Your task to perform on an android device: Do I have any events this weekend? Image 0: 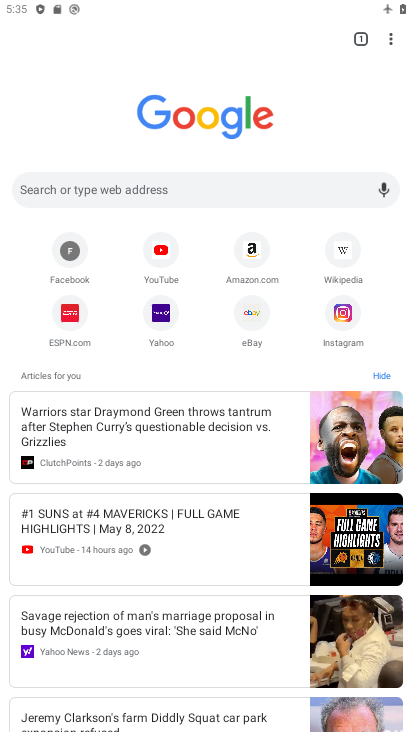
Step 0: press home button
Your task to perform on an android device: Do I have any events this weekend? Image 1: 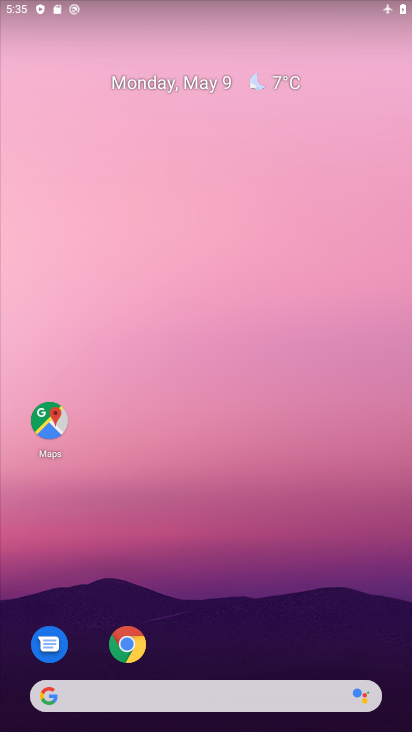
Step 1: click (159, 81)
Your task to perform on an android device: Do I have any events this weekend? Image 2: 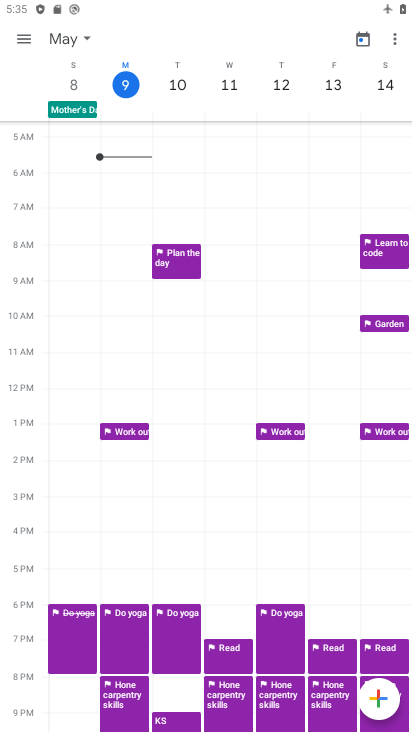
Step 2: click (23, 35)
Your task to perform on an android device: Do I have any events this weekend? Image 3: 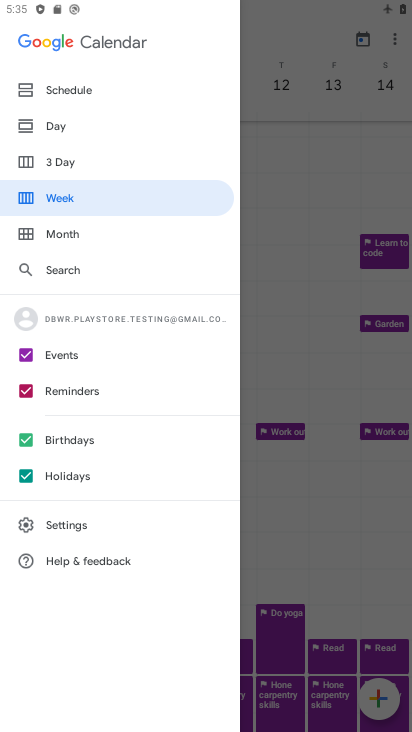
Step 3: click (74, 159)
Your task to perform on an android device: Do I have any events this weekend? Image 4: 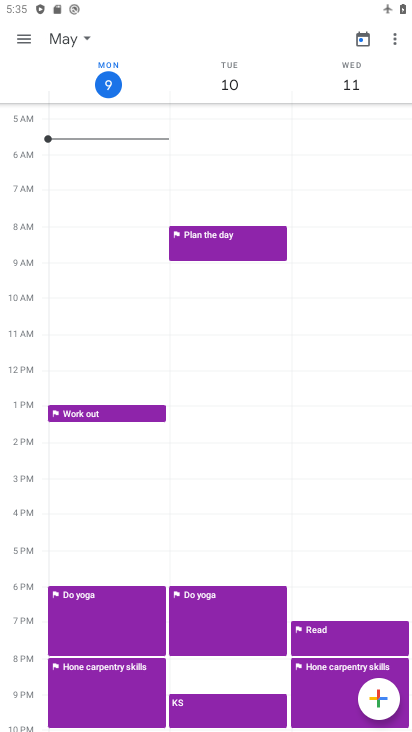
Step 4: task complete